Your task to perform on an android device: turn on location history Image 0: 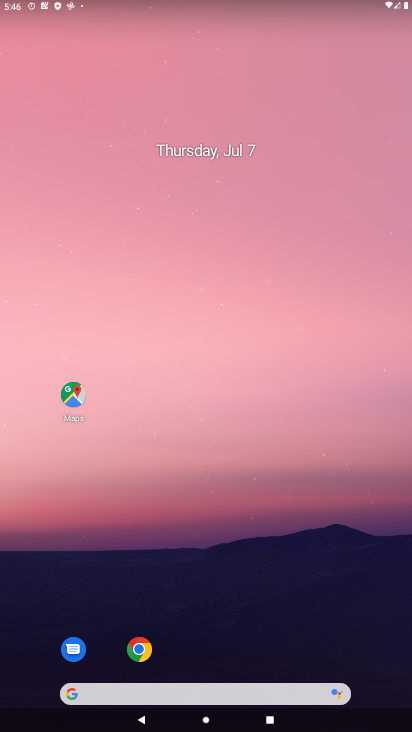
Step 0: drag from (359, 623) to (184, 80)
Your task to perform on an android device: turn on location history Image 1: 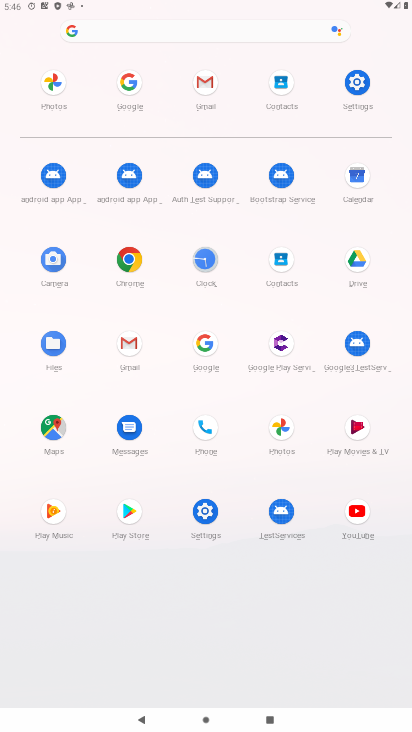
Step 1: click (358, 85)
Your task to perform on an android device: turn on location history Image 2: 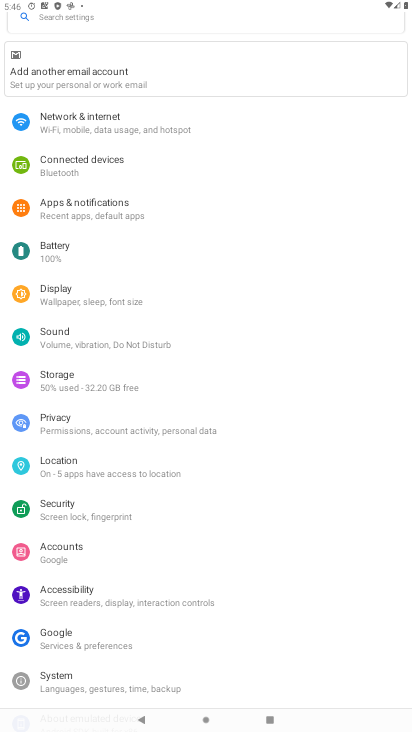
Step 2: click (96, 462)
Your task to perform on an android device: turn on location history Image 3: 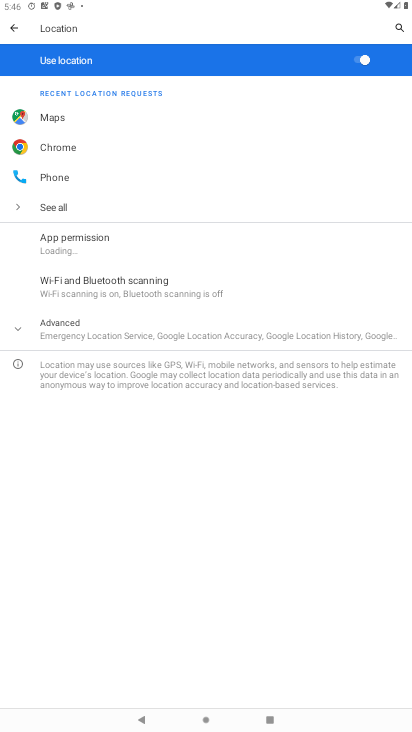
Step 3: click (94, 330)
Your task to perform on an android device: turn on location history Image 4: 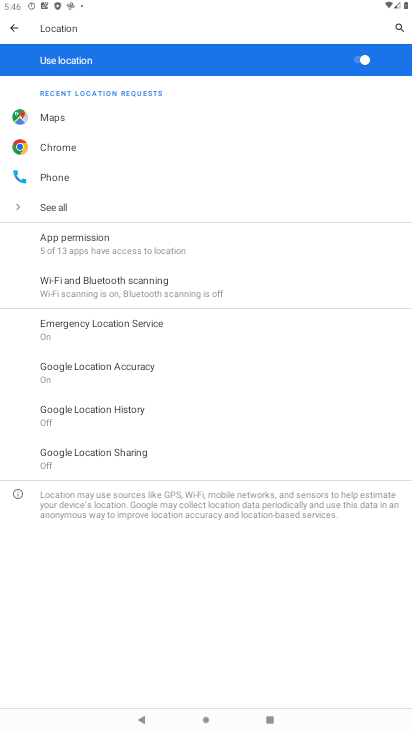
Step 4: click (83, 407)
Your task to perform on an android device: turn on location history Image 5: 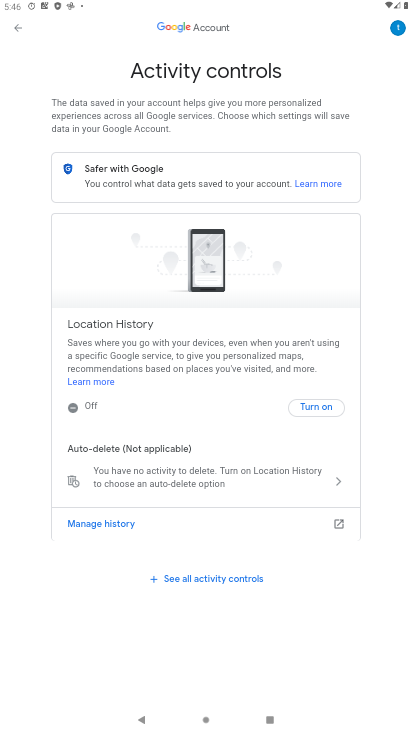
Step 5: task complete